Your task to perform on an android device: clear history in the chrome app Image 0: 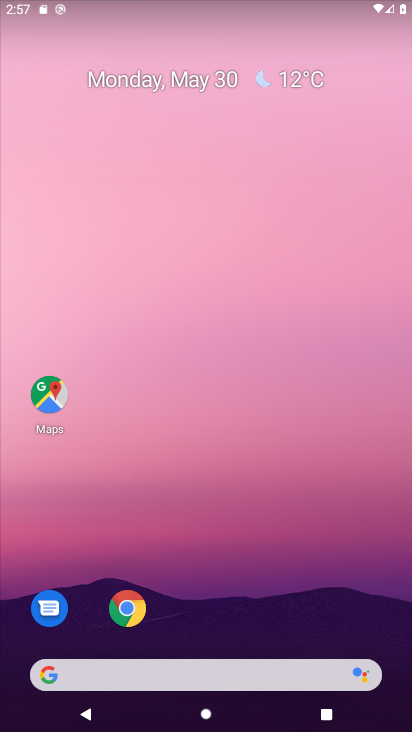
Step 0: drag from (299, 511) to (265, 723)
Your task to perform on an android device: clear history in the chrome app Image 1: 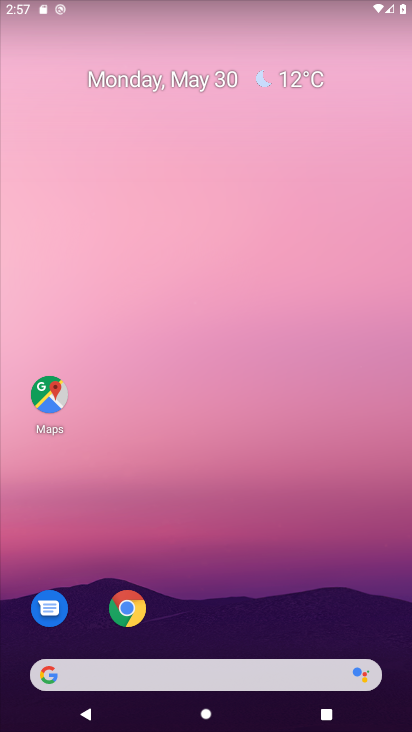
Step 1: click (137, 606)
Your task to perform on an android device: clear history in the chrome app Image 2: 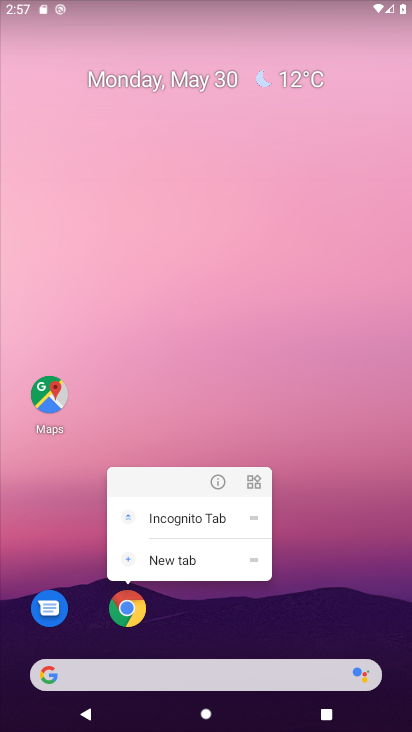
Step 2: click (132, 614)
Your task to perform on an android device: clear history in the chrome app Image 3: 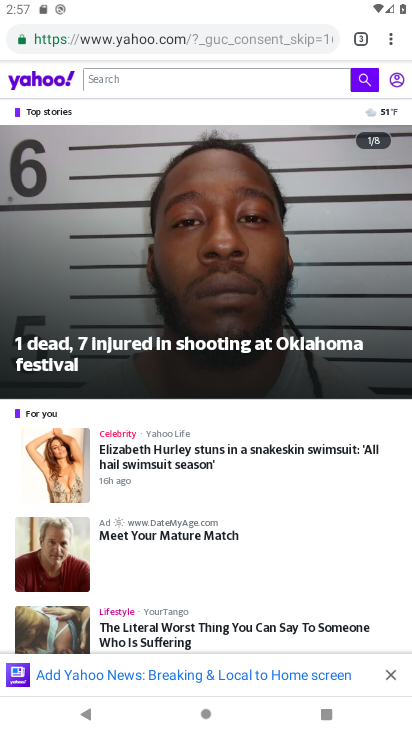
Step 3: click (393, 31)
Your task to perform on an android device: clear history in the chrome app Image 4: 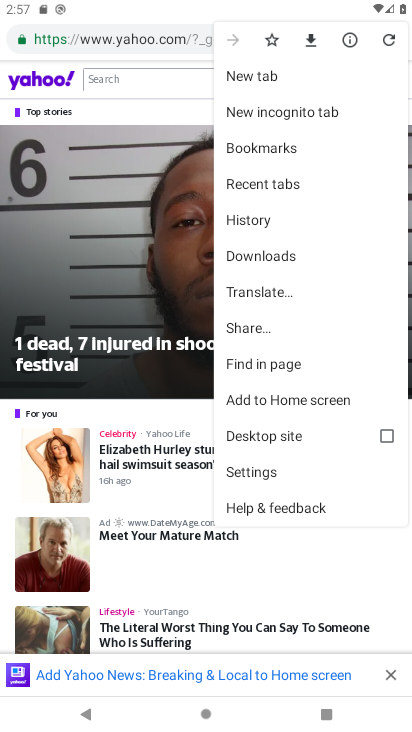
Step 4: click (283, 217)
Your task to perform on an android device: clear history in the chrome app Image 5: 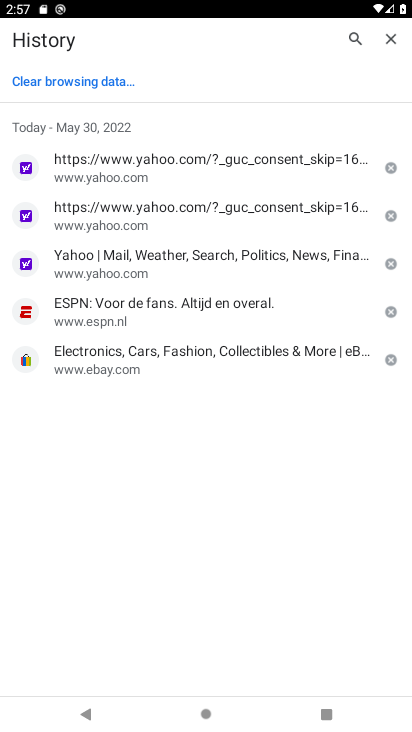
Step 5: click (82, 74)
Your task to perform on an android device: clear history in the chrome app Image 6: 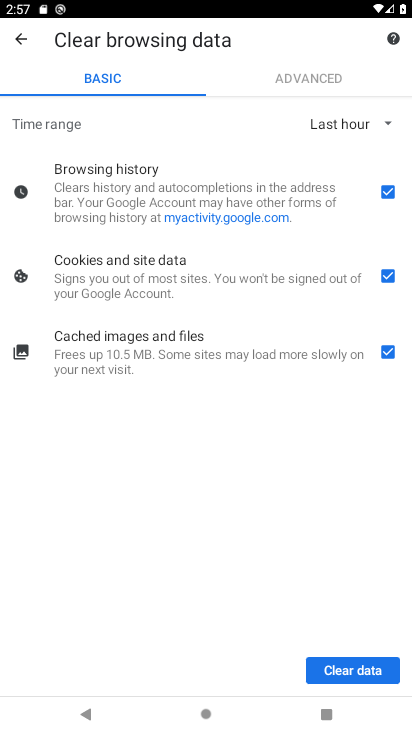
Step 6: click (357, 655)
Your task to perform on an android device: clear history in the chrome app Image 7: 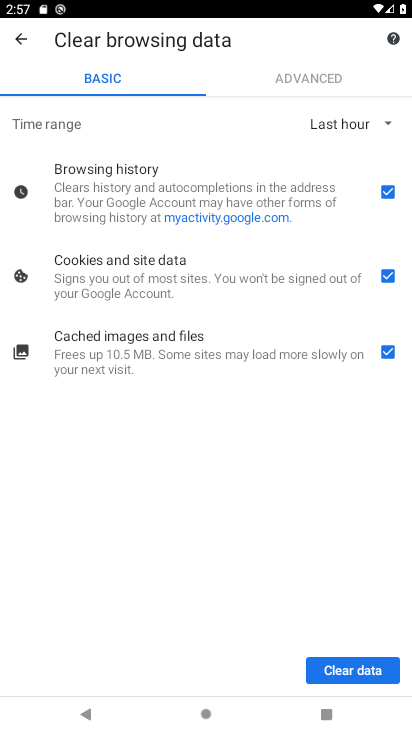
Step 7: click (332, 674)
Your task to perform on an android device: clear history in the chrome app Image 8: 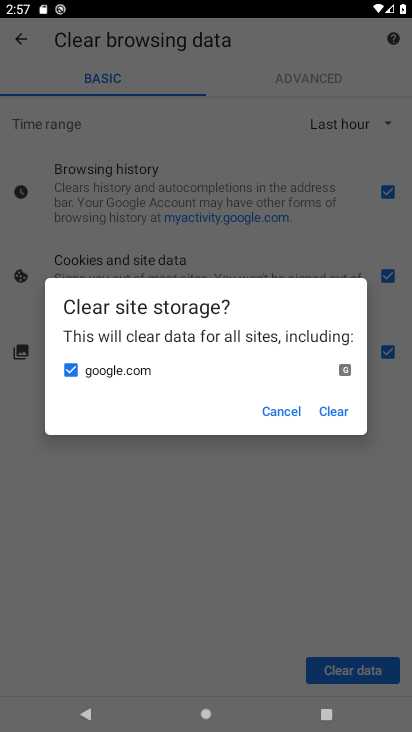
Step 8: click (340, 408)
Your task to perform on an android device: clear history in the chrome app Image 9: 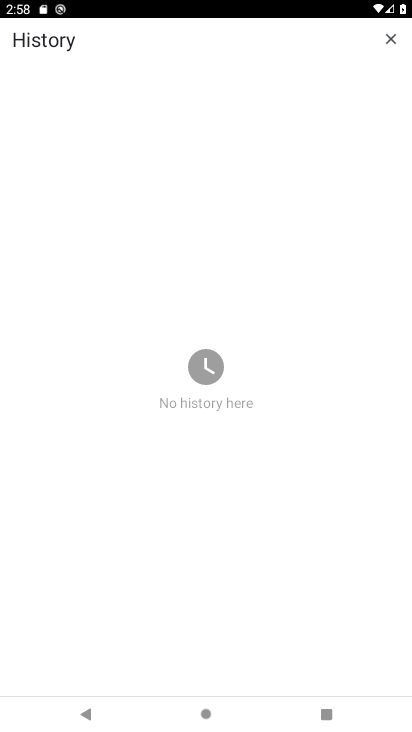
Step 9: task complete